Your task to perform on an android device: What's the weather? Image 0: 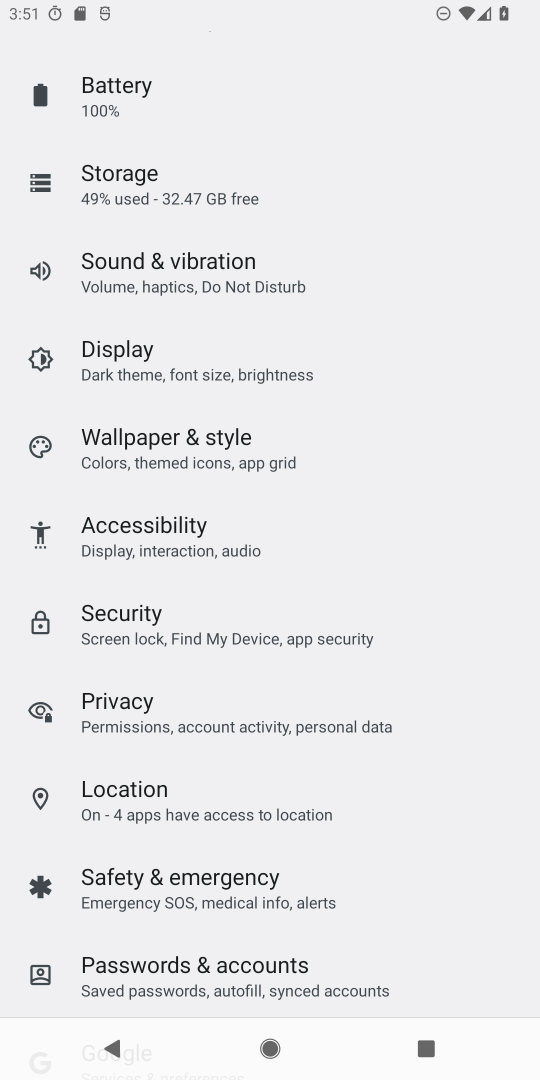
Step 0: press home button
Your task to perform on an android device: What's the weather? Image 1: 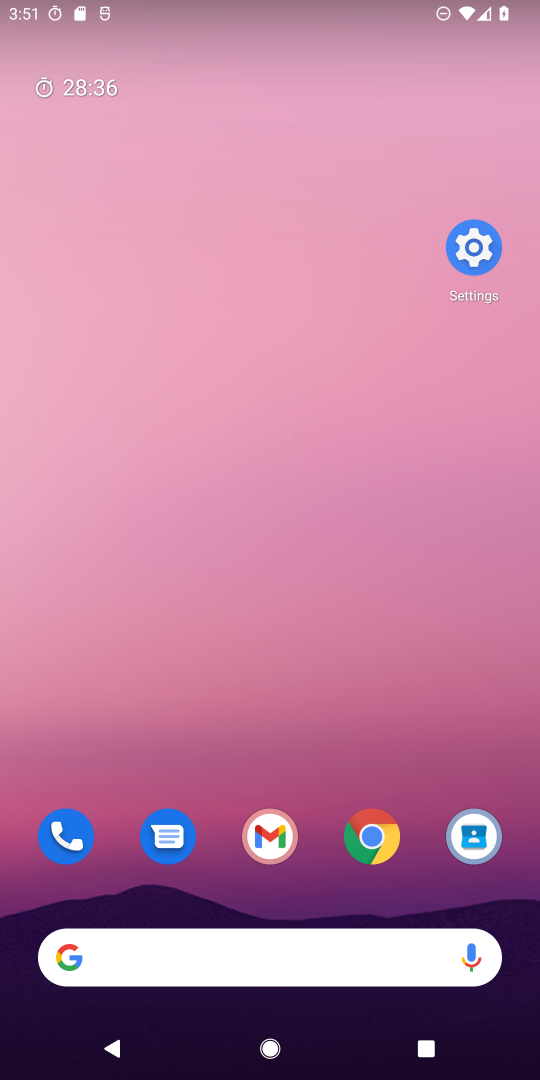
Step 1: click (241, 957)
Your task to perform on an android device: What's the weather? Image 2: 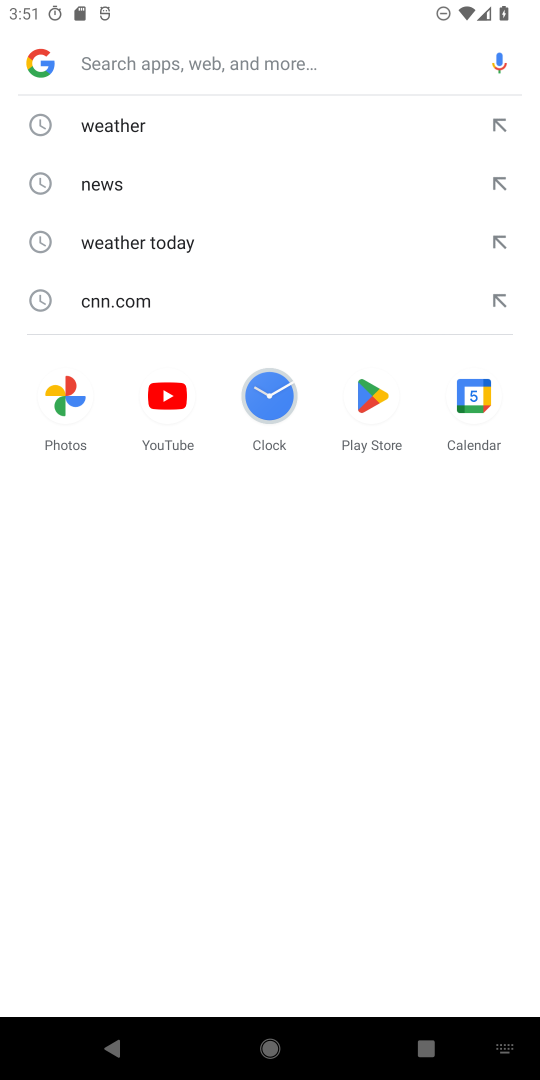
Step 2: click (127, 131)
Your task to perform on an android device: What's the weather? Image 3: 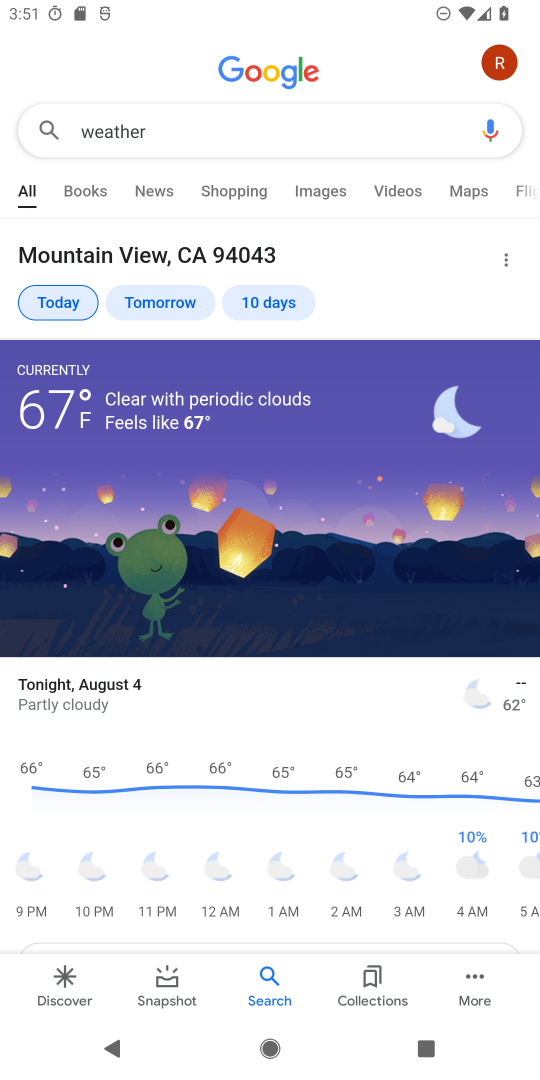
Step 3: task complete